Your task to perform on an android device: check the backup settings in the google photos Image 0: 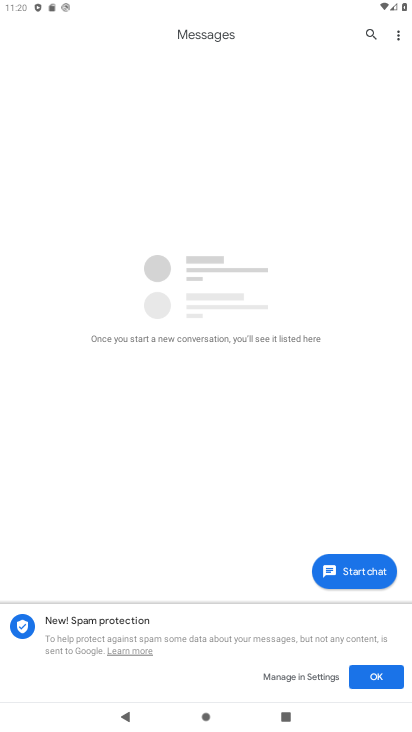
Step 0: press home button
Your task to perform on an android device: check the backup settings in the google photos Image 1: 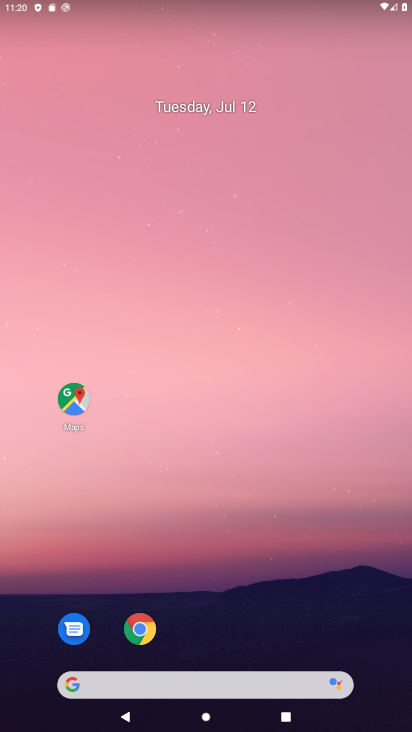
Step 1: drag from (221, 680) to (268, 110)
Your task to perform on an android device: check the backup settings in the google photos Image 2: 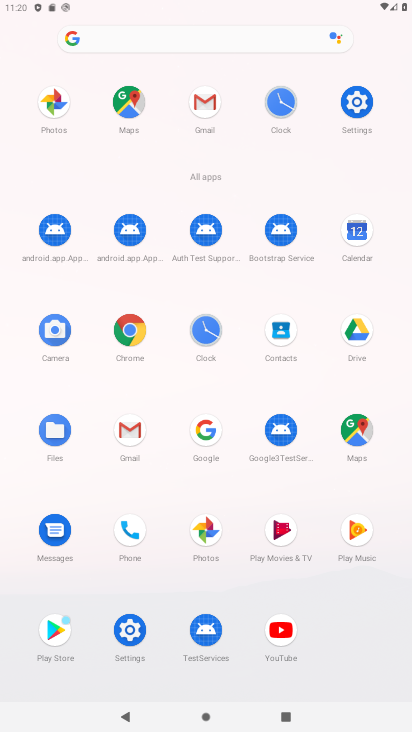
Step 2: click (203, 518)
Your task to perform on an android device: check the backup settings in the google photos Image 3: 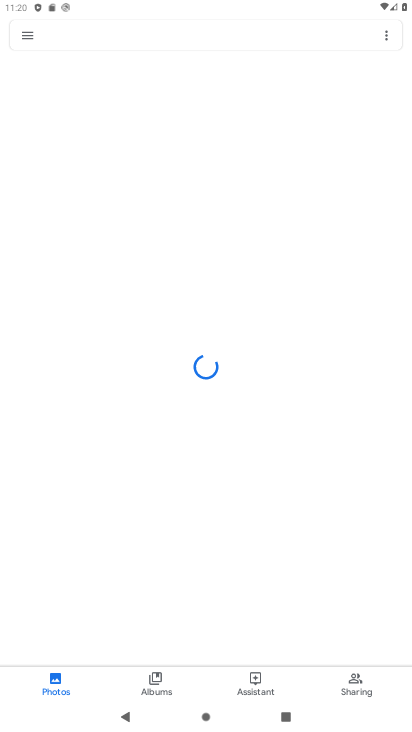
Step 3: click (23, 31)
Your task to perform on an android device: check the backup settings in the google photos Image 4: 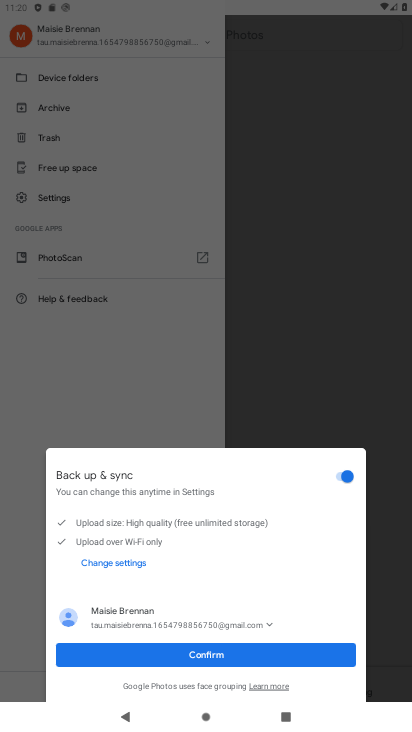
Step 4: click (328, 648)
Your task to perform on an android device: check the backup settings in the google photos Image 5: 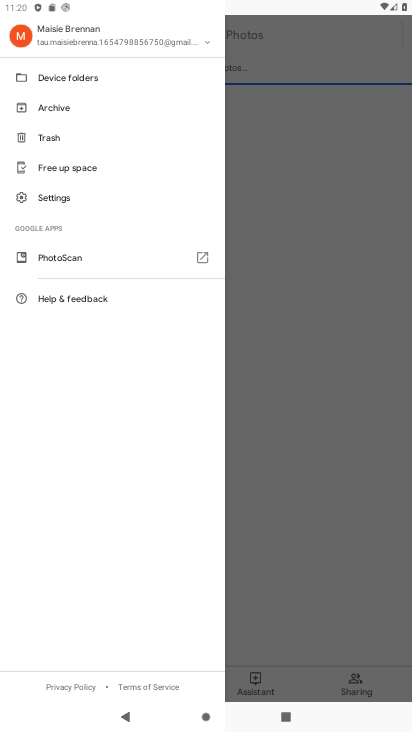
Step 5: click (56, 201)
Your task to perform on an android device: check the backup settings in the google photos Image 6: 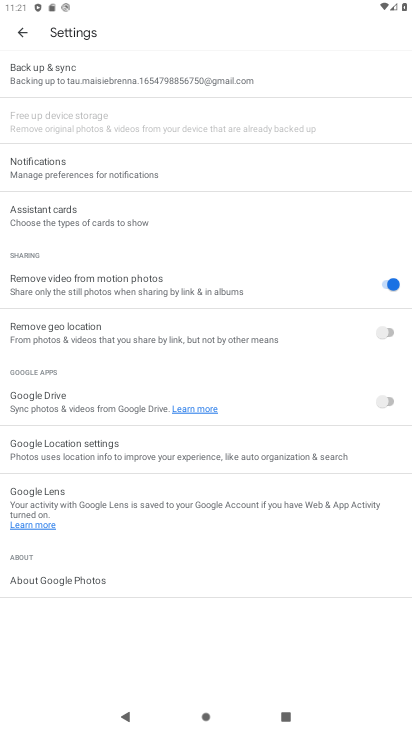
Step 6: click (85, 85)
Your task to perform on an android device: check the backup settings in the google photos Image 7: 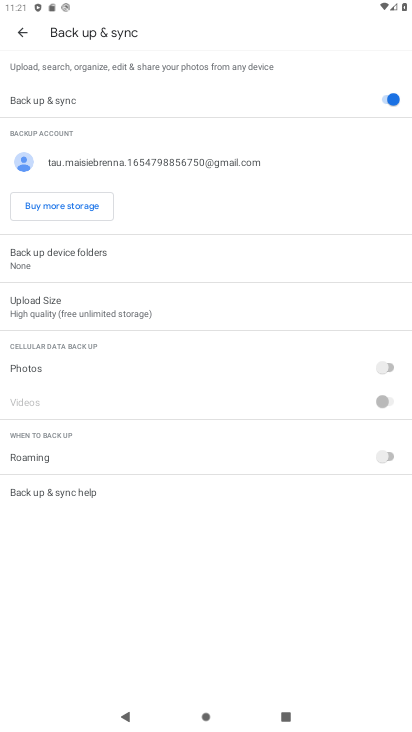
Step 7: task complete